Your task to perform on an android device: Open Yahoo.com Image 0: 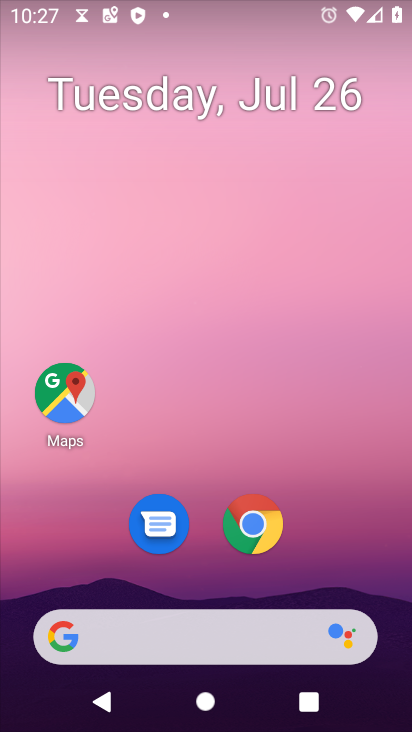
Step 0: click (249, 532)
Your task to perform on an android device: Open Yahoo.com Image 1: 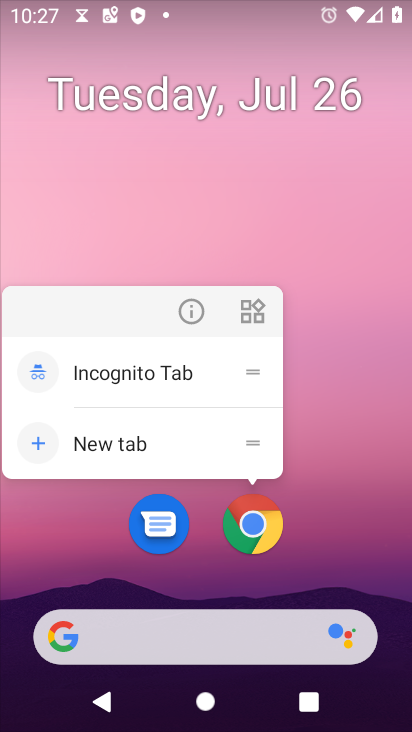
Step 1: click (258, 522)
Your task to perform on an android device: Open Yahoo.com Image 2: 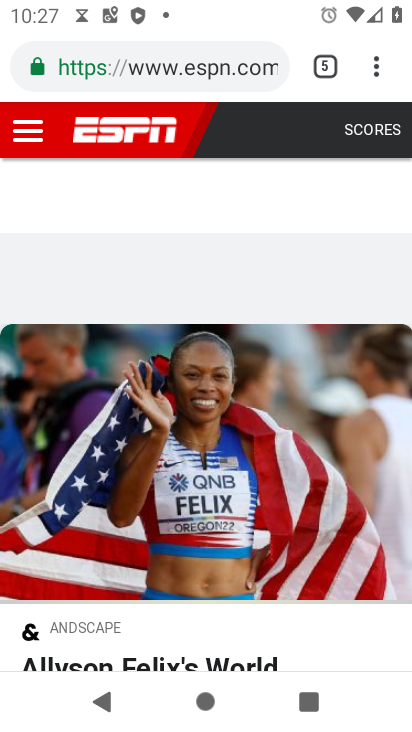
Step 2: drag from (372, 68) to (210, 126)
Your task to perform on an android device: Open Yahoo.com Image 3: 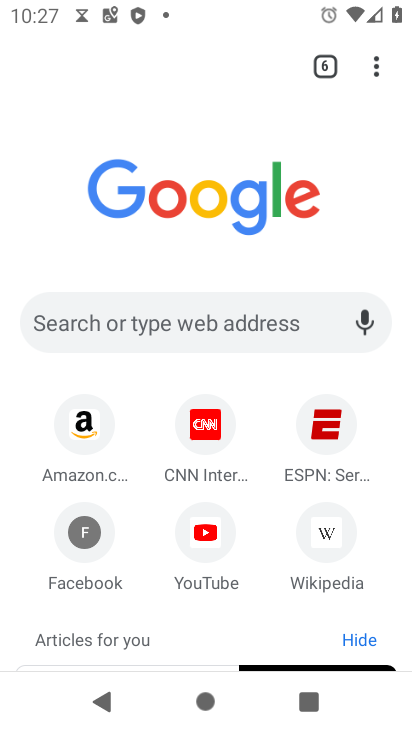
Step 3: drag from (216, 628) to (285, 359)
Your task to perform on an android device: Open Yahoo.com Image 4: 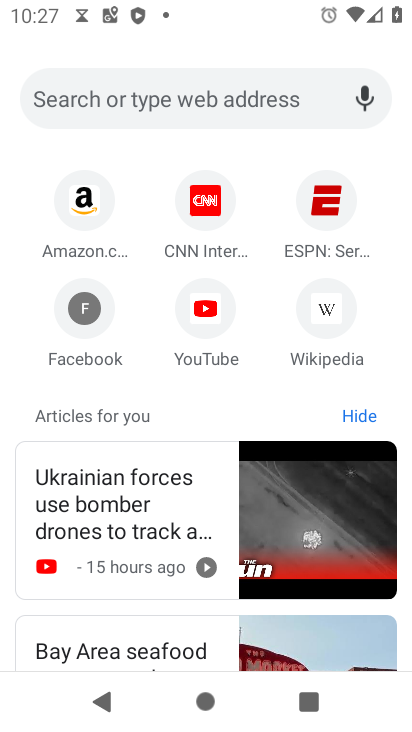
Step 4: drag from (252, 298) to (185, 604)
Your task to perform on an android device: Open Yahoo.com Image 5: 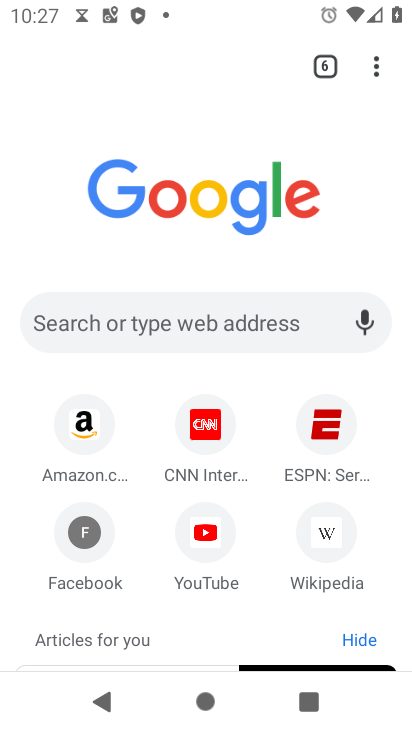
Step 5: click (121, 319)
Your task to perform on an android device: Open Yahoo.com Image 6: 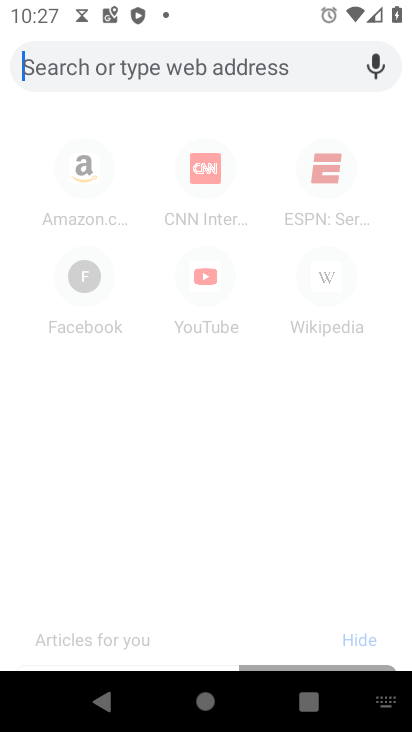
Step 6: type "yahoo.com"
Your task to perform on an android device: Open Yahoo.com Image 7: 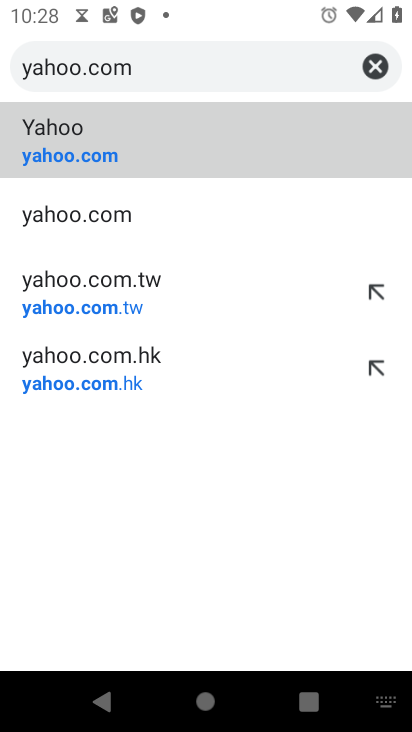
Step 7: click (60, 129)
Your task to perform on an android device: Open Yahoo.com Image 8: 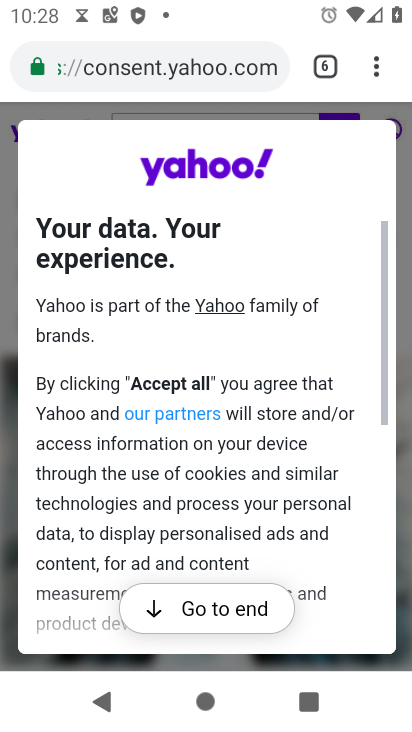
Step 8: click (234, 607)
Your task to perform on an android device: Open Yahoo.com Image 9: 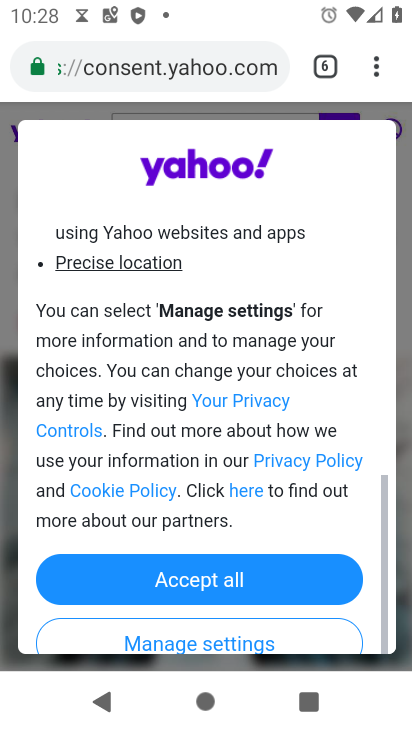
Step 9: click (238, 579)
Your task to perform on an android device: Open Yahoo.com Image 10: 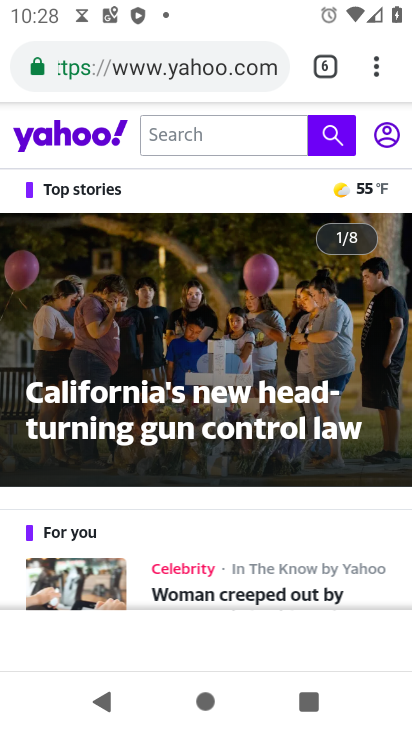
Step 10: task complete